Your task to perform on an android device: Open Amazon Image 0: 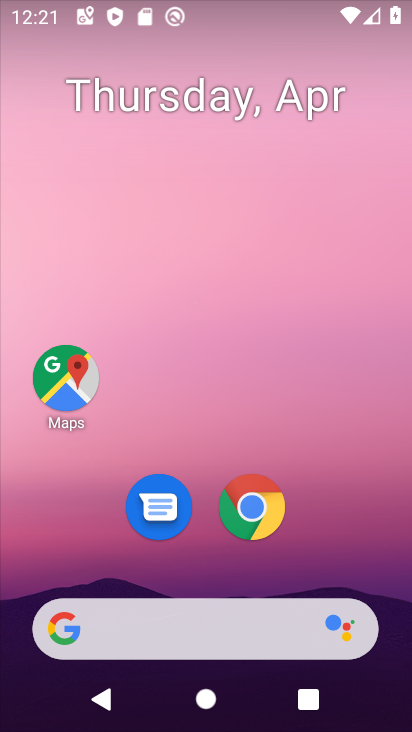
Step 0: click (254, 508)
Your task to perform on an android device: Open Amazon Image 1: 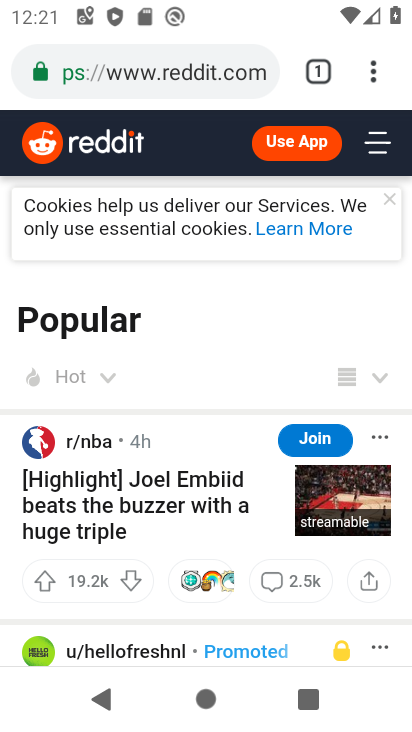
Step 1: click (236, 80)
Your task to perform on an android device: Open Amazon Image 2: 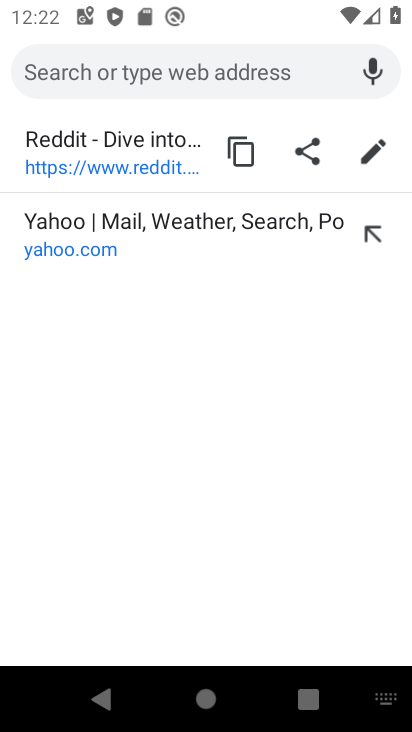
Step 2: type "Amazon"
Your task to perform on an android device: Open Amazon Image 3: 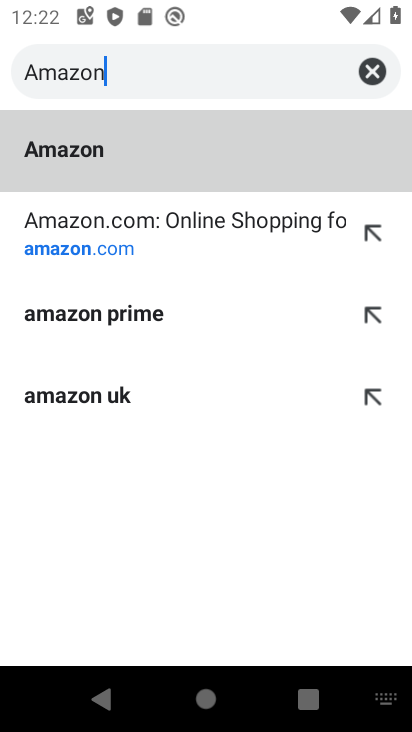
Step 3: click (84, 247)
Your task to perform on an android device: Open Amazon Image 4: 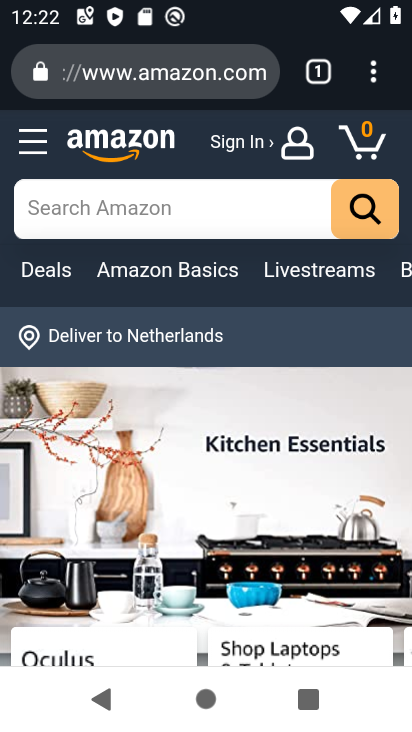
Step 4: task complete